Your task to perform on an android device: stop showing notifications on the lock screen Image 0: 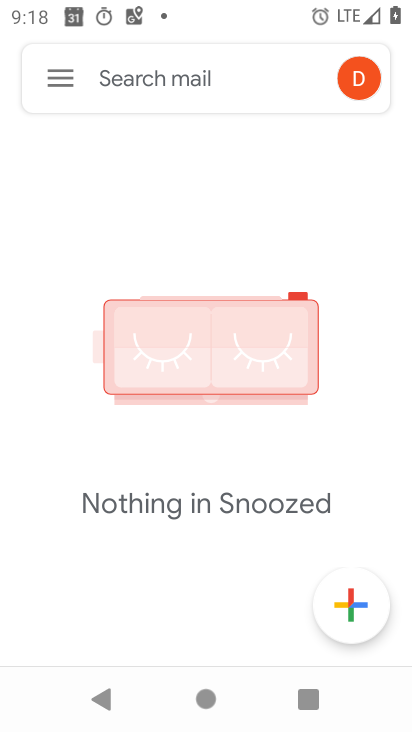
Step 0: press home button
Your task to perform on an android device: stop showing notifications on the lock screen Image 1: 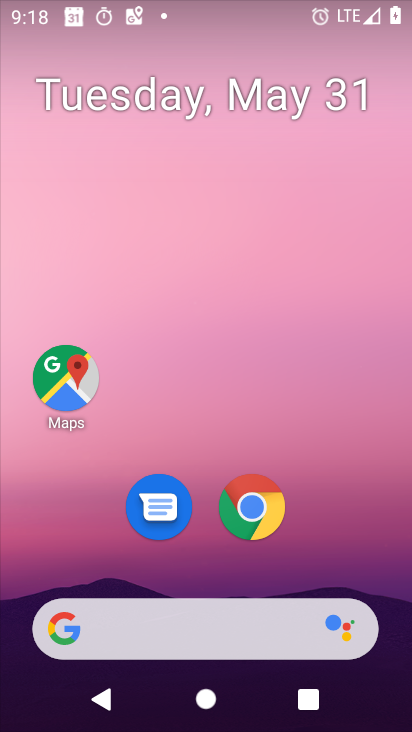
Step 1: drag from (103, 458) to (292, 139)
Your task to perform on an android device: stop showing notifications on the lock screen Image 2: 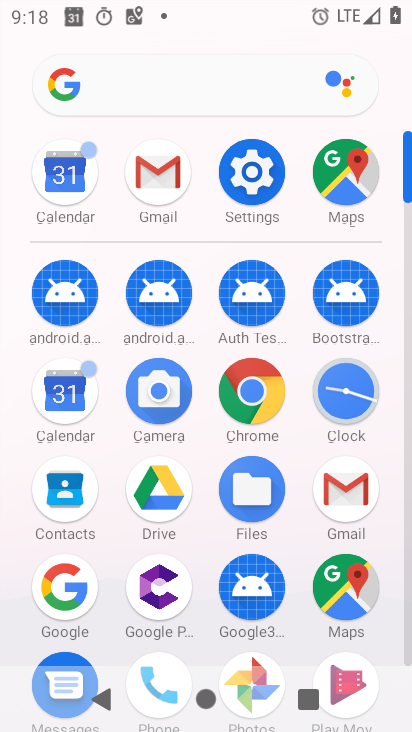
Step 2: click (247, 180)
Your task to perform on an android device: stop showing notifications on the lock screen Image 3: 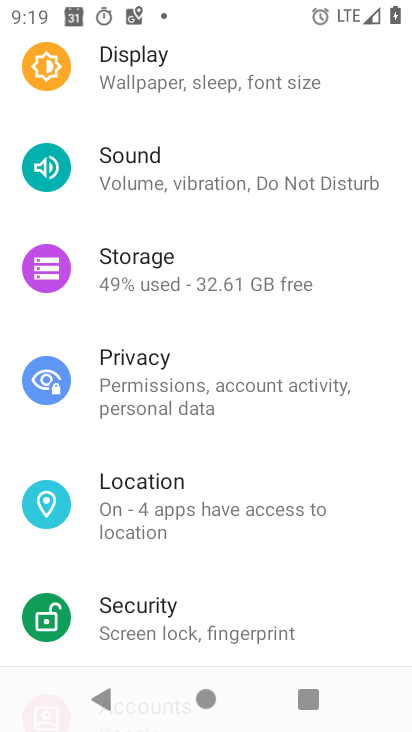
Step 3: drag from (183, 146) to (107, 611)
Your task to perform on an android device: stop showing notifications on the lock screen Image 4: 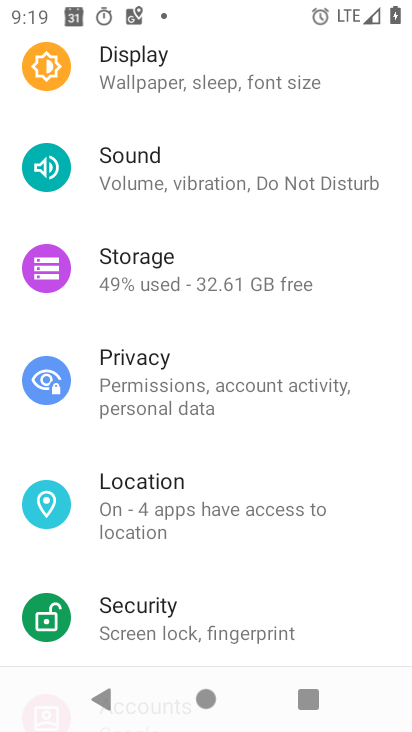
Step 4: drag from (120, 98) to (42, 624)
Your task to perform on an android device: stop showing notifications on the lock screen Image 5: 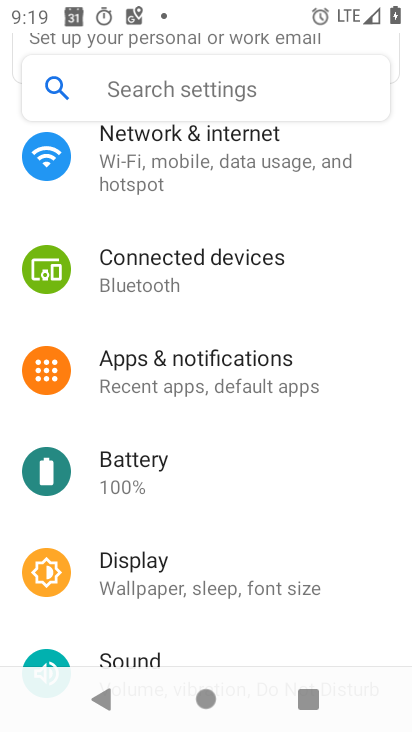
Step 5: drag from (85, 122) to (21, 586)
Your task to perform on an android device: stop showing notifications on the lock screen Image 6: 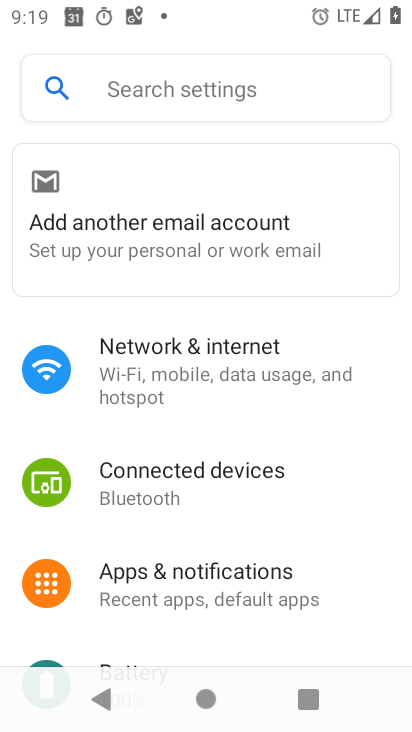
Step 6: click (140, 599)
Your task to perform on an android device: stop showing notifications on the lock screen Image 7: 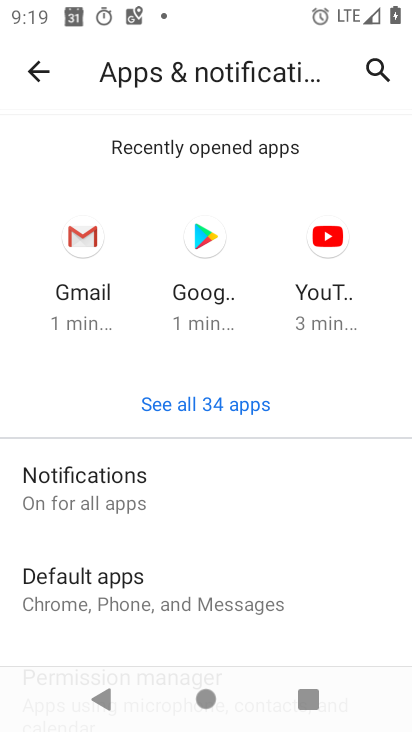
Step 7: drag from (38, 461) to (240, 32)
Your task to perform on an android device: stop showing notifications on the lock screen Image 8: 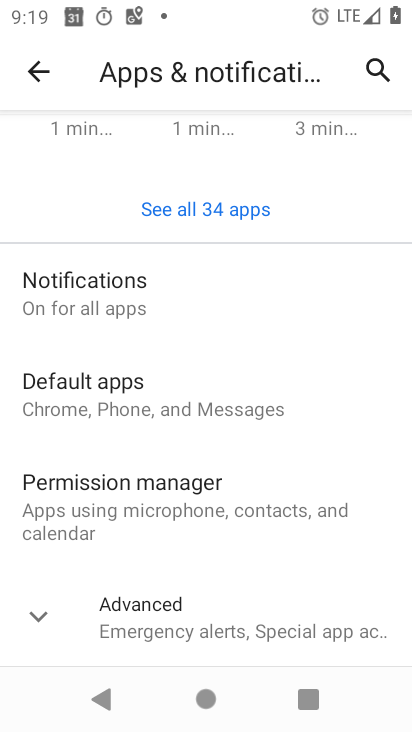
Step 8: drag from (8, 442) to (227, 145)
Your task to perform on an android device: stop showing notifications on the lock screen Image 9: 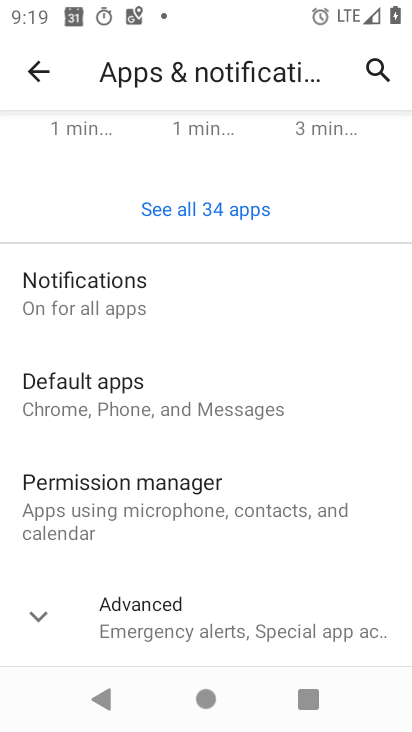
Step 9: drag from (17, 443) to (181, 195)
Your task to perform on an android device: stop showing notifications on the lock screen Image 10: 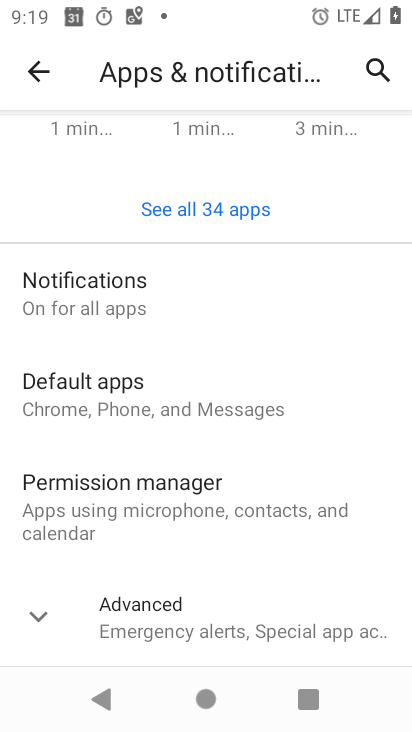
Step 10: click (67, 273)
Your task to perform on an android device: stop showing notifications on the lock screen Image 11: 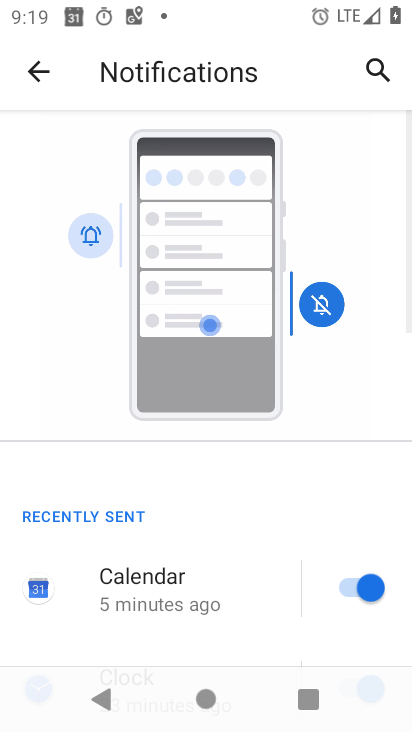
Step 11: drag from (29, 350) to (174, 130)
Your task to perform on an android device: stop showing notifications on the lock screen Image 12: 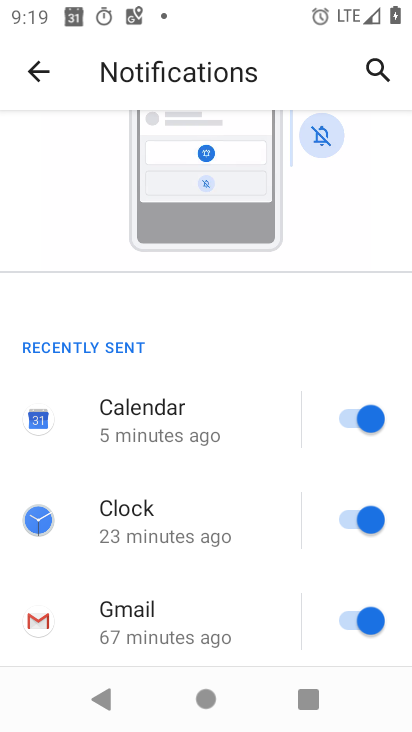
Step 12: drag from (47, 346) to (168, 143)
Your task to perform on an android device: stop showing notifications on the lock screen Image 13: 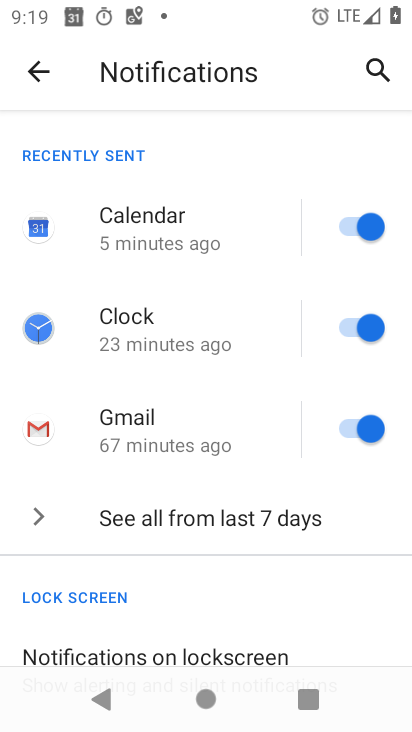
Step 13: click (96, 659)
Your task to perform on an android device: stop showing notifications on the lock screen Image 14: 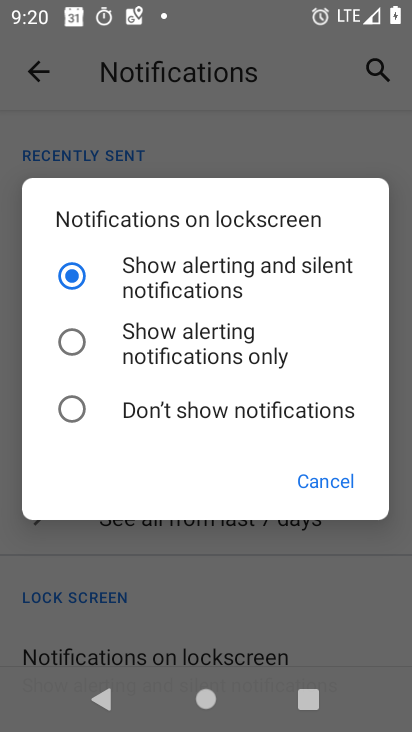
Step 14: click (74, 418)
Your task to perform on an android device: stop showing notifications on the lock screen Image 15: 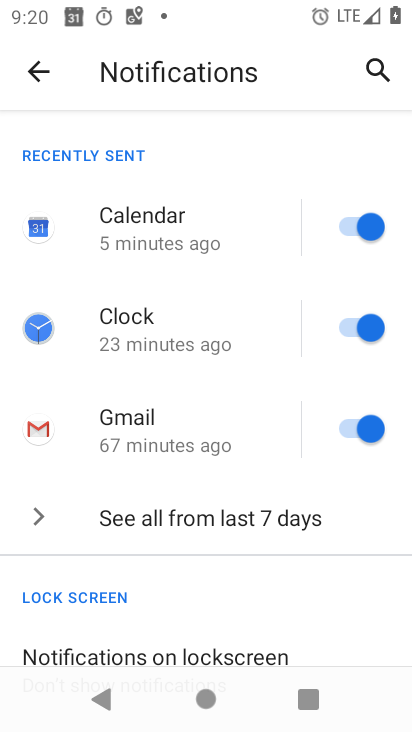
Step 15: task complete